Your task to perform on an android device: turn on priority inbox in the gmail app Image 0: 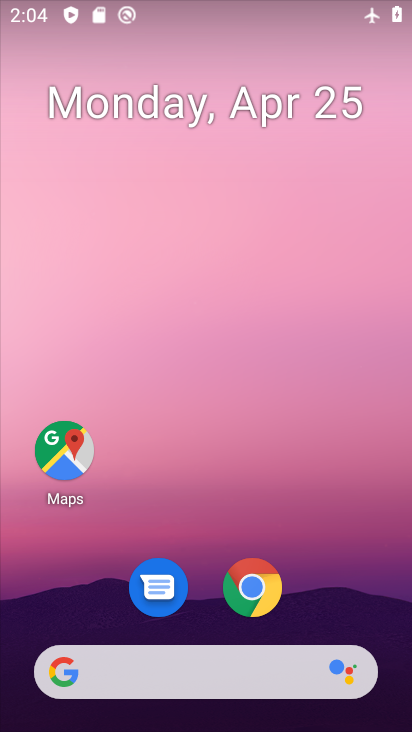
Step 0: click (267, 113)
Your task to perform on an android device: turn on priority inbox in the gmail app Image 1: 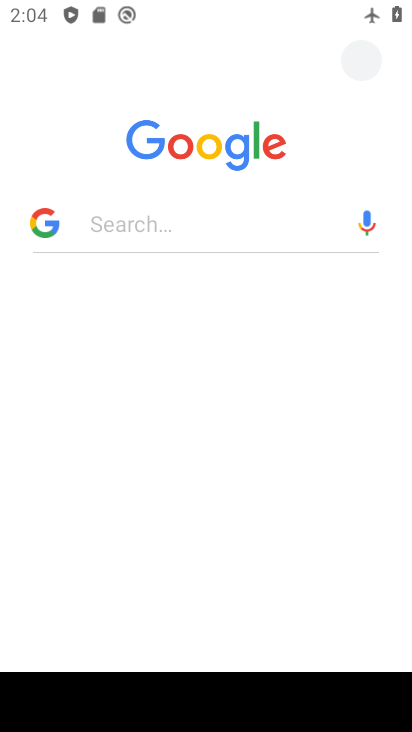
Step 1: press home button
Your task to perform on an android device: turn on priority inbox in the gmail app Image 2: 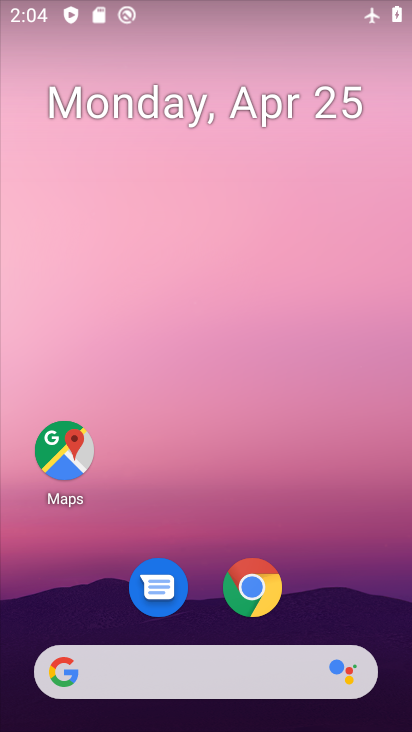
Step 2: drag from (358, 614) to (323, 65)
Your task to perform on an android device: turn on priority inbox in the gmail app Image 3: 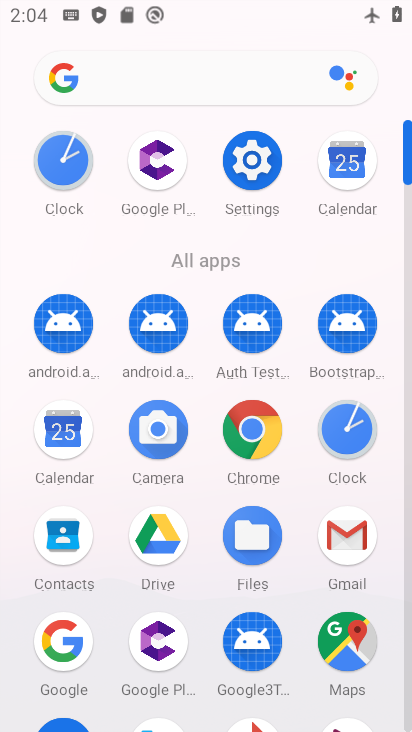
Step 3: click (347, 533)
Your task to perform on an android device: turn on priority inbox in the gmail app Image 4: 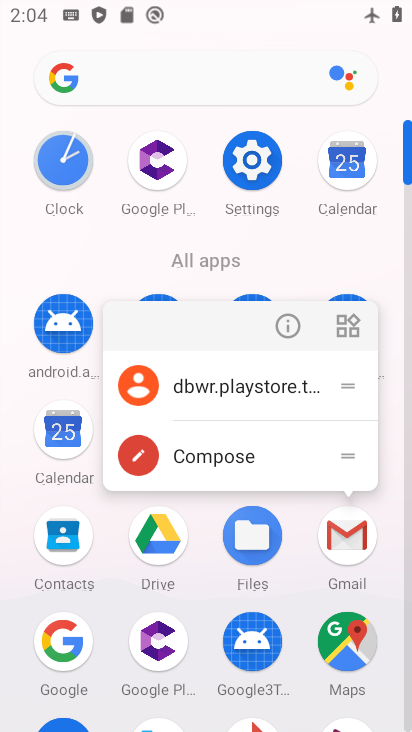
Step 4: click (347, 533)
Your task to perform on an android device: turn on priority inbox in the gmail app Image 5: 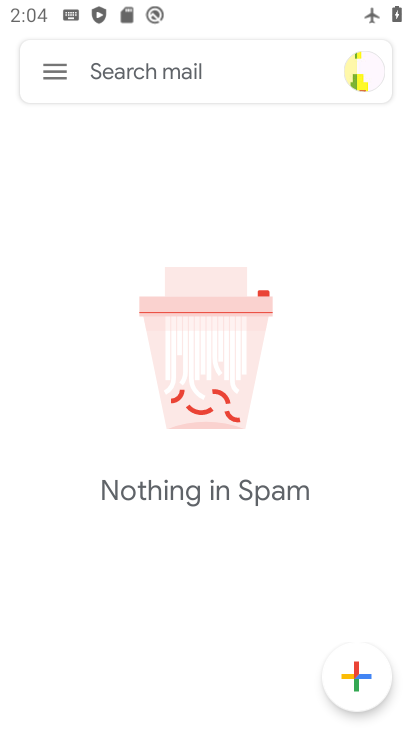
Step 5: click (49, 70)
Your task to perform on an android device: turn on priority inbox in the gmail app Image 6: 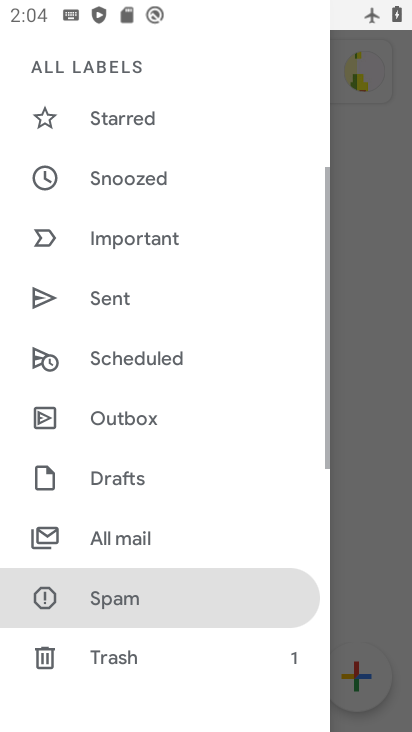
Step 6: drag from (137, 586) to (216, 28)
Your task to perform on an android device: turn on priority inbox in the gmail app Image 7: 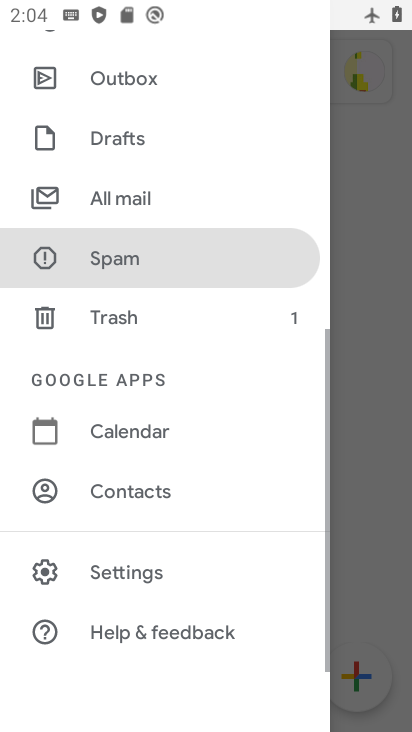
Step 7: click (128, 588)
Your task to perform on an android device: turn on priority inbox in the gmail app Image 8: 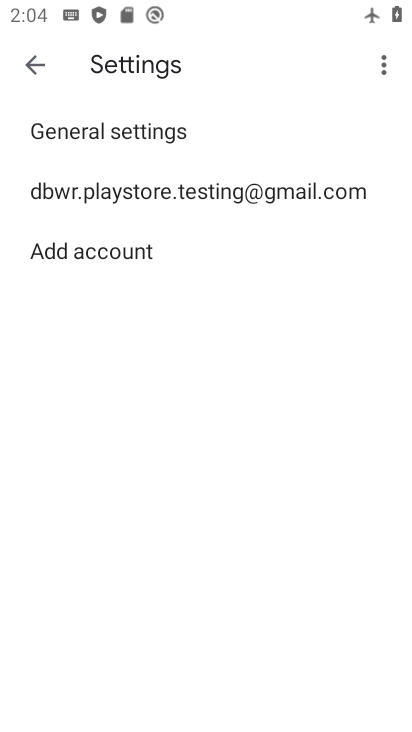
Step 8: click (233, 184)
Your task to perform on an android device: turn on priority inbox in the gmail app Image 9: 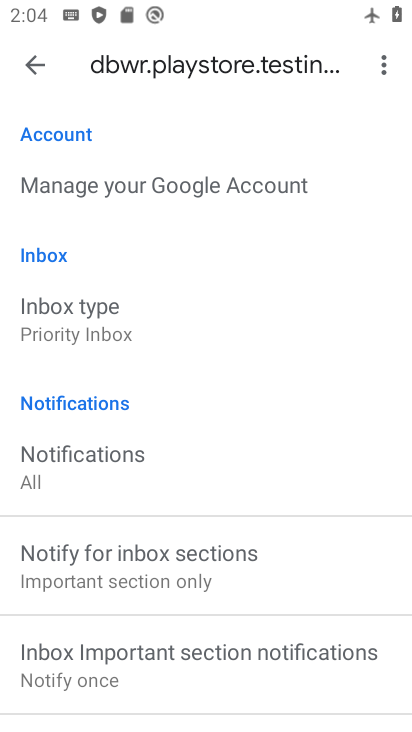
Step 9: click (73, 313)
Your task to perform on an android device: turn on priority inbox in the gmail app Image 10: 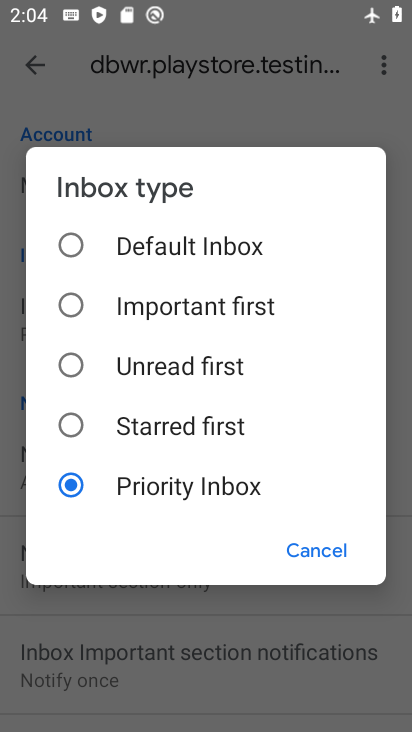
Step 10: task complete